Your task to perform on an android device: change text size in settings app Image 0: 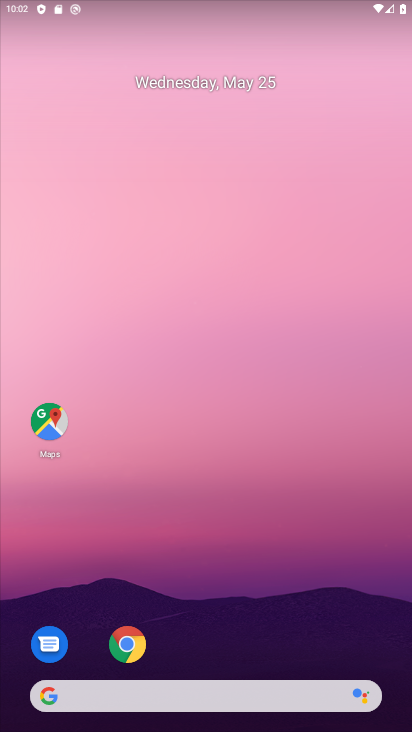
Step 0: drag from (203, 602) to (274, 100)
Your task to perform on an android device: change text size in settings app Image 1: 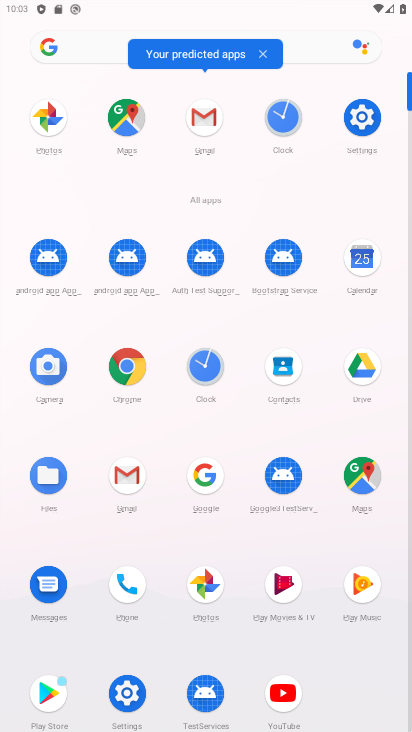
Step 1: click (369, 120)
Your task to perform on an android device: change text size in settings app Image 2: 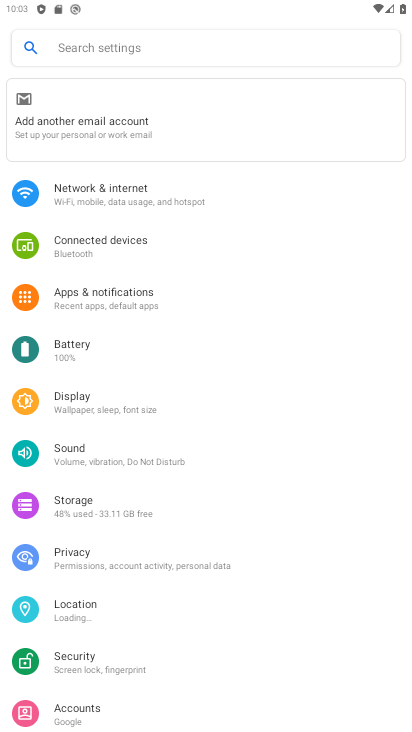
Step 2: click (110, 410)
Your task to perform on an android device: change text size in settings app Image 3: 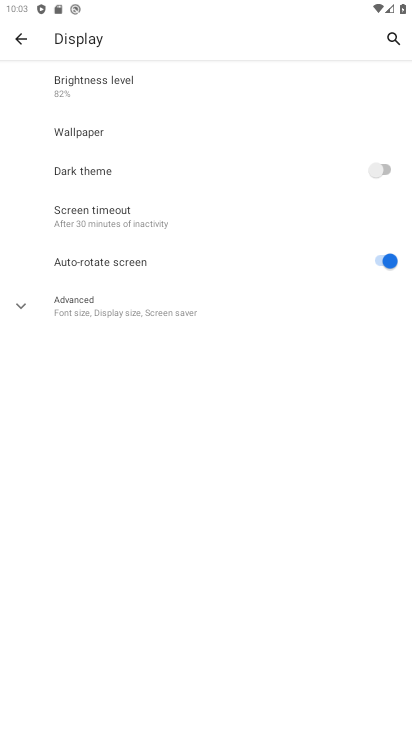
Step 3: click (72, 313)
Your task to perform on an android device: change text size in settings app Image 4: 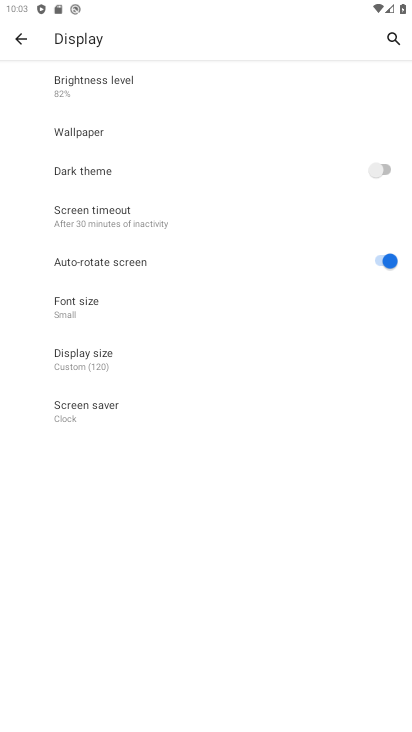
Step 4: click (73, 305)
Your task to perform on an android device: change text size in settings app Image 5: 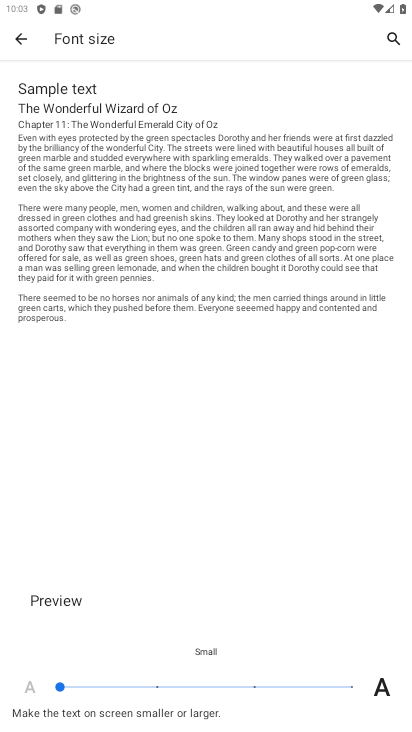
Step 5: task complete